Your task to perform on an android device: Open Maps and search for coffee Image 0: 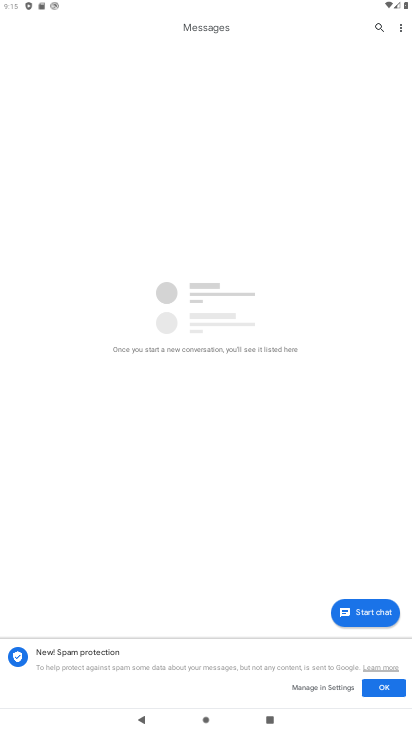
Step 0: press home button
Your task to perform on an android device: Open Maps and search for coffee Image 1: 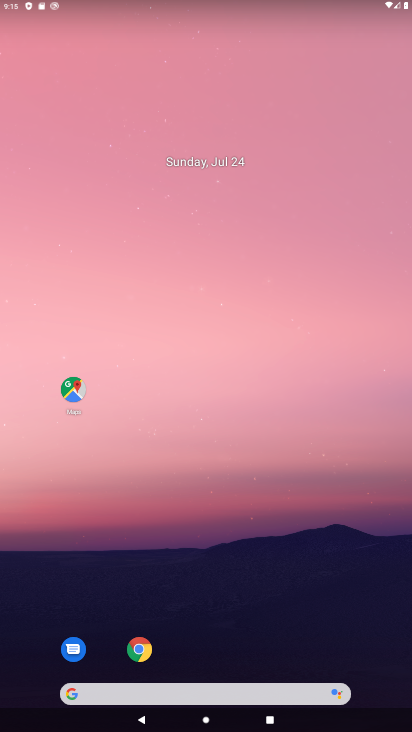
Step 1: click (70, 397)
Your task to perform on an android device: Open Maps and search for coffee Image 2: 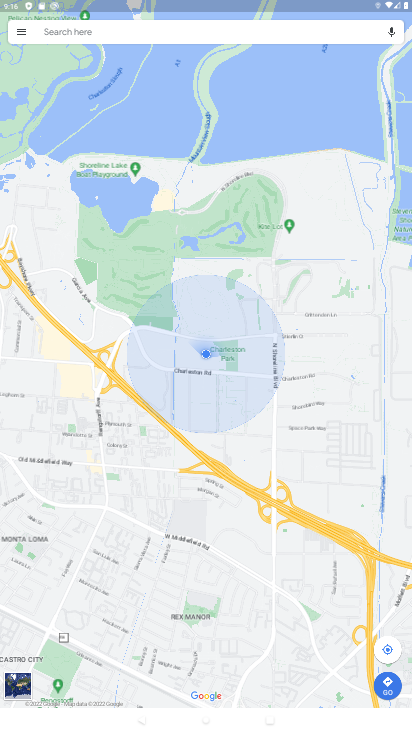
Step 2: click (136, 32)
Your task to perform on an android device: Open Maps and search for coffee Image 3: 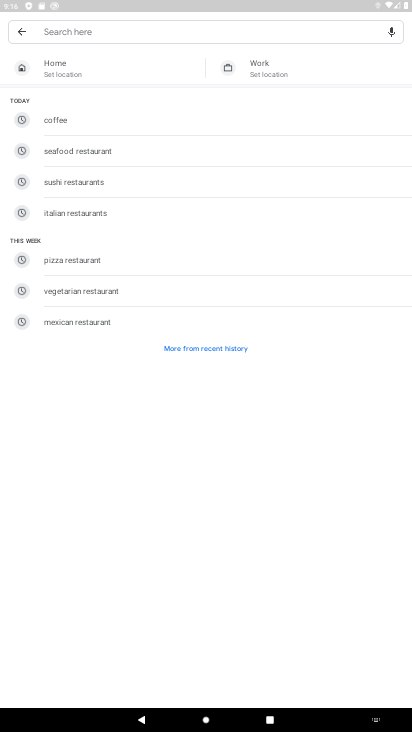
Step 3: click (59, 121)
Your task to perform on an android device: Open Maps and search for coffee Image 4: 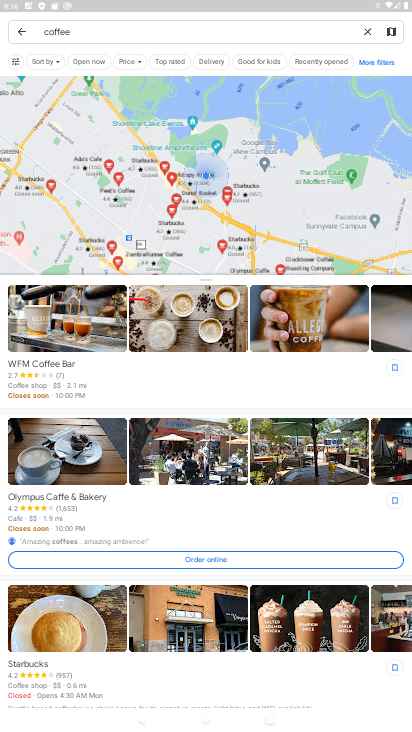
Step 4: task complete